Your task to perform on an android device: toggle notification dots Image 0: 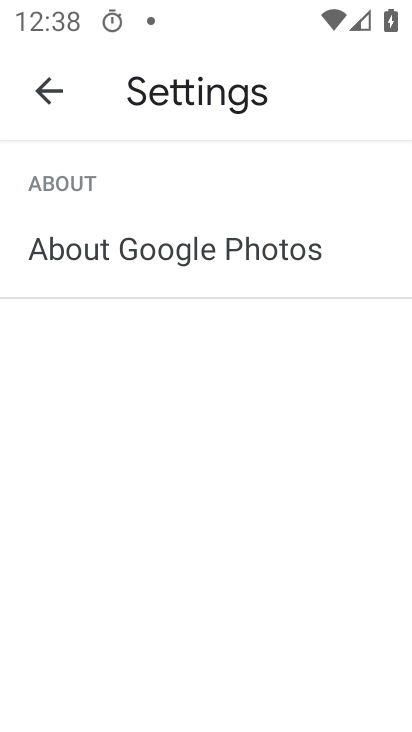
Step 0: drag from (359, 519) to (366, 20)
Your task to perform on an android device: toggle notification dots Image 1: 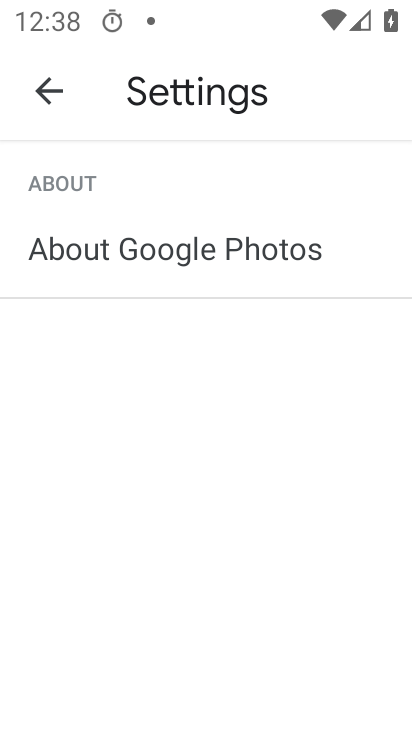
Step 1: press home button
Your task to perform on an android device: toggle notification dots Image 2: 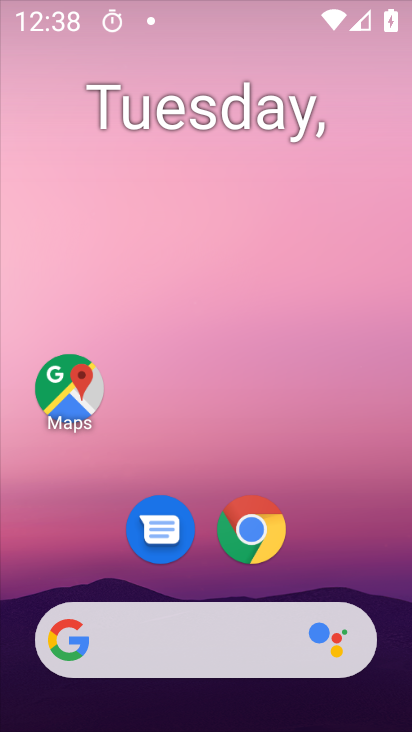
Step 2: drag from (365, 533) to (340, 54)
Your task to perform on an android device: toggle notification dots Image 3: 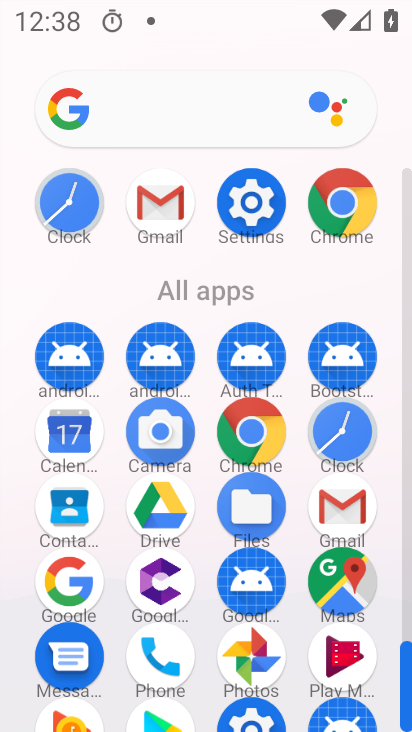
Step 3: click (251, 202)
Your task to perform on an android device: toggle notification dots Image 4: 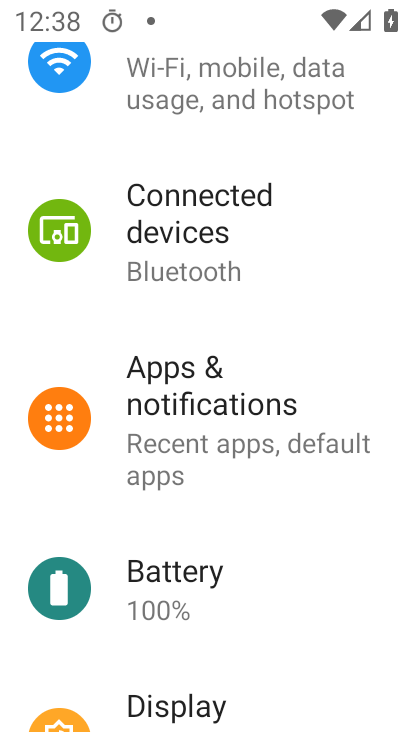
Step 4: click (217, 231)
Your task to perform on an android device: toggle notification dots Image 5: 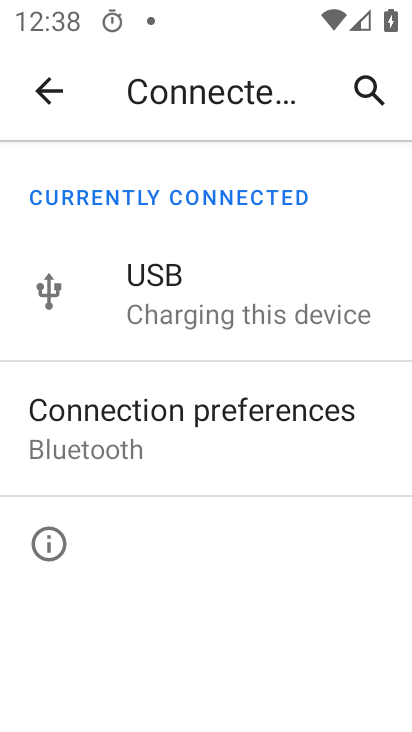
Step 5: click (39, 84)
Your task to perform on an android device: toggle notification dots Image 6: 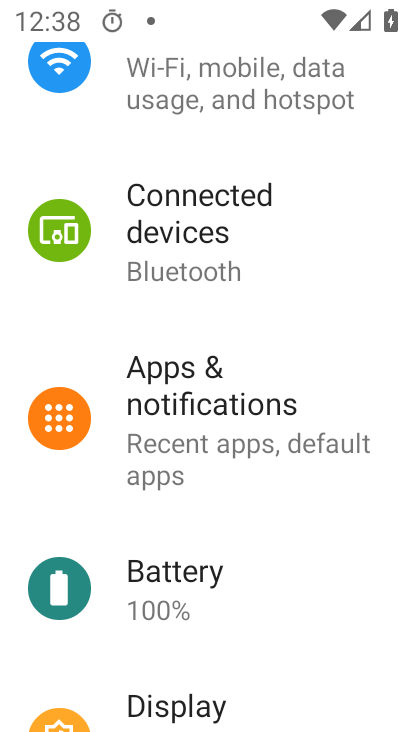
Step 6: click (225, 408)
Your task to perform on an android device: toggle notification dots Image 7: 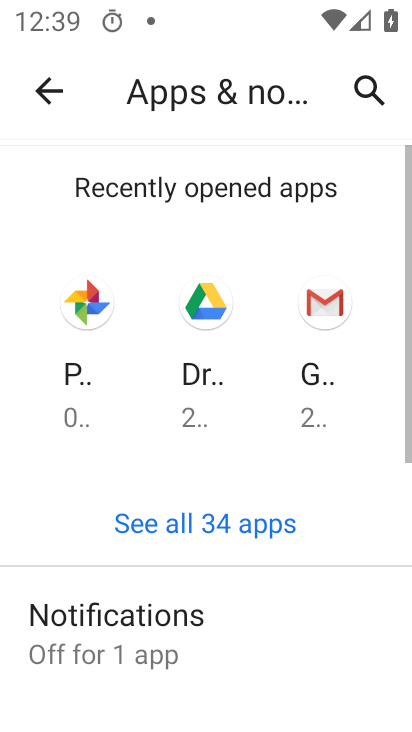
Step 7: click (133, 615)
Your task to perform on an android device: toggle notification dots Image 8: 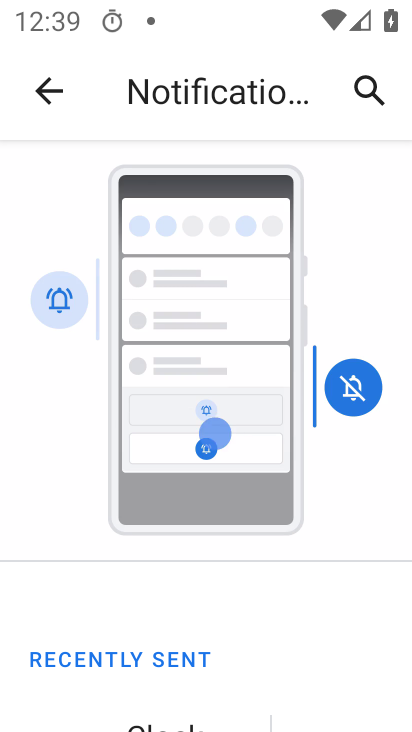
Step 8: drag from (166, 653) to (211, 233)
Your task to perform on an android device: toggle notification dots Image 9: 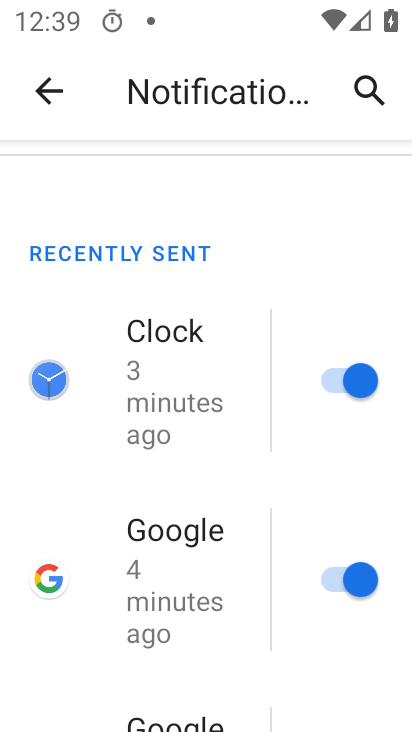
Step 9: drag from (235, 569) to (272, 64)
Your task to perform on an android device: toggle notification dots Image 10: 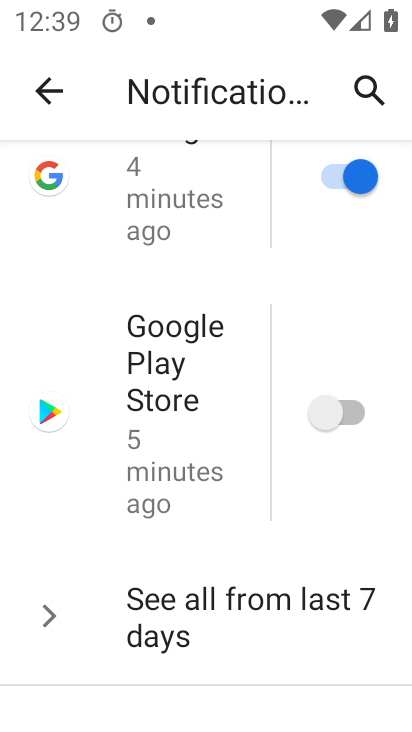
Step 10: drag from (222, 492) to (243, 24)
Your task to perform on an android device: toggle notification dots Image 11: 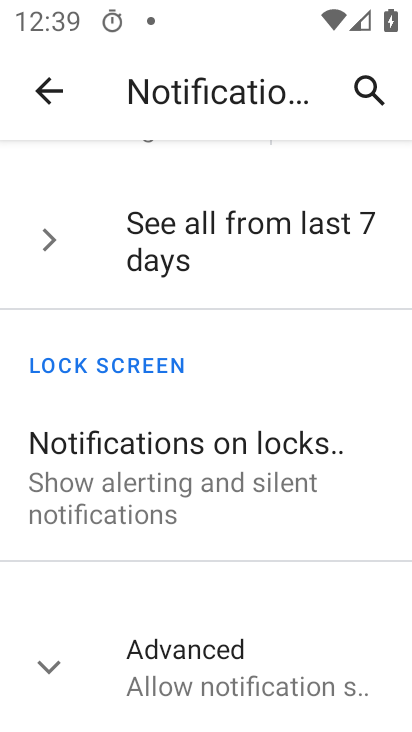
Step 11: drag from (240, 553) to (232, 364)
Your task to perform on an android device: toggle notification dots Image 12: 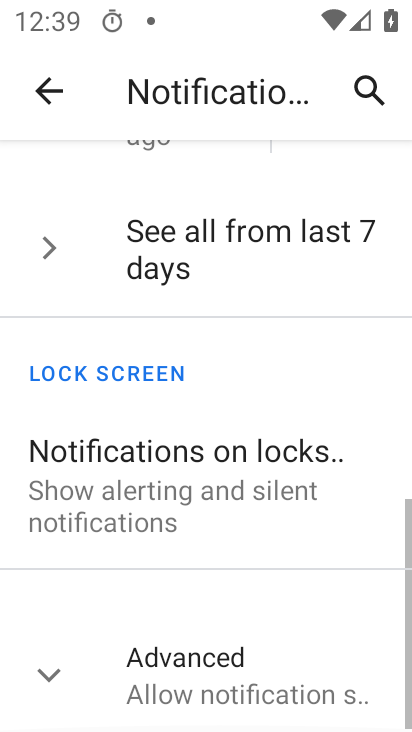
Step 12: click (221, 655)
Your task to perform on an android device: toggle notification dots Image 13: 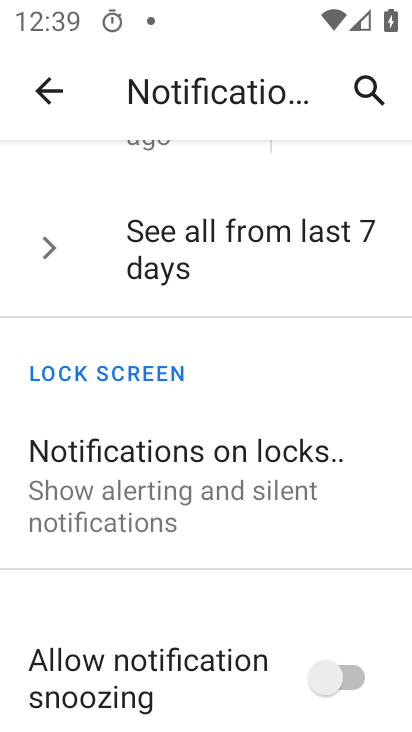
Step 13: drag from (222, 653) to (284, 211)
Your task to perform on an android device: toggle notification dots Image 14: 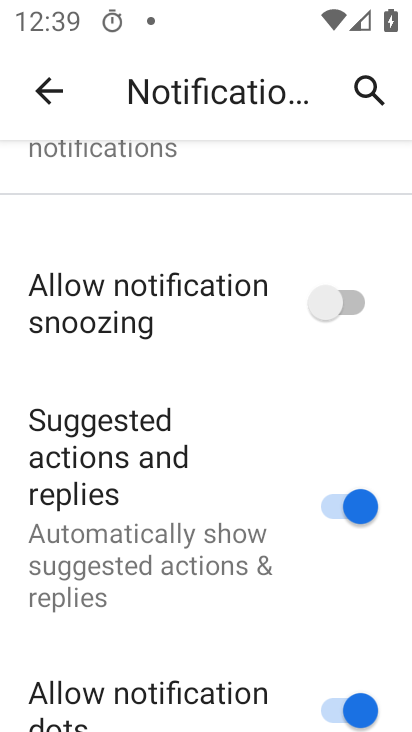
Step 14: drag from (122, 612) to (96, 147)
Your task to perform on an android device: toggle notification dots Image 15: 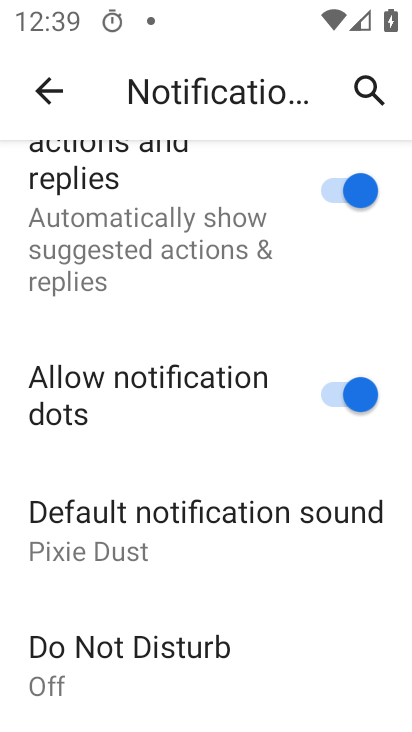
Step 15: click (347, 405)
Your task to perform on an android device: toggle notification dots Image 16: 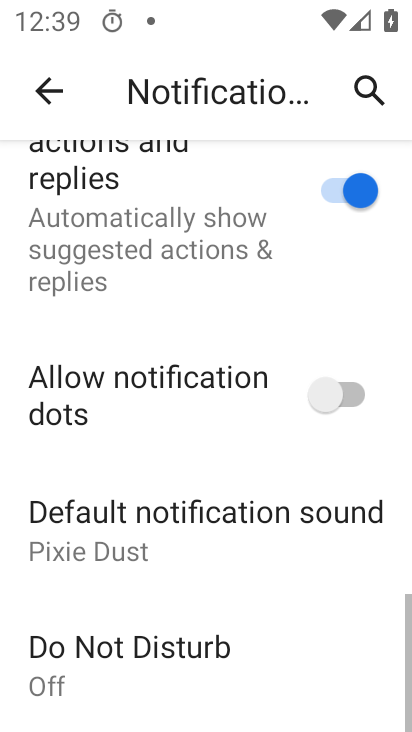
Step 16: task complete